Your task to perform on an android device: turn on improve location accuracy Image 0: 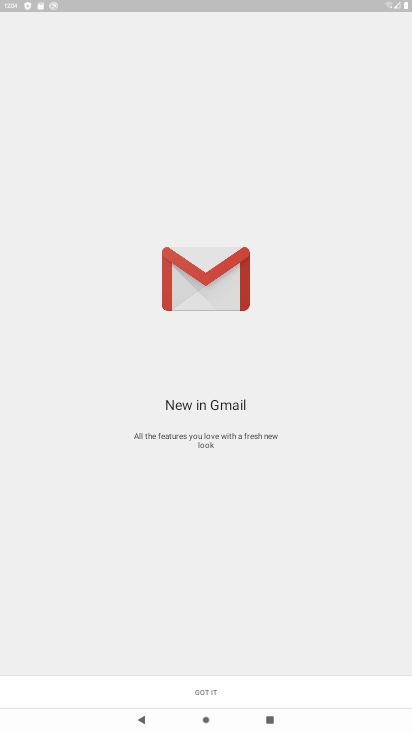
Step 0: press home button
Your task to perform on an android device: turn on improve location accuracy Image 1: 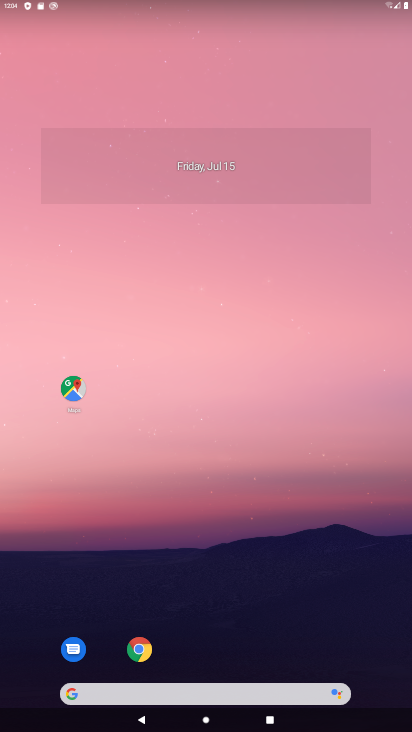
Step 1: drag from (253, 558) to (145, 16)
Your task to perform on an android device: turn on improve location accuracy Image 2: 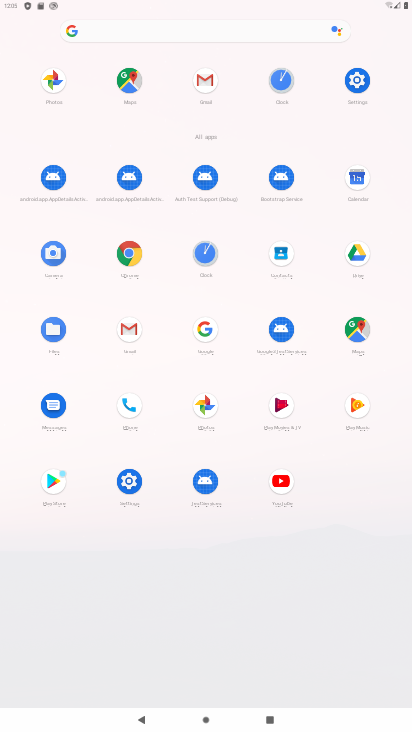
Step 2: click (137, 484)
Your task to perform on an android device: turn on improve location accuracy Image 3: 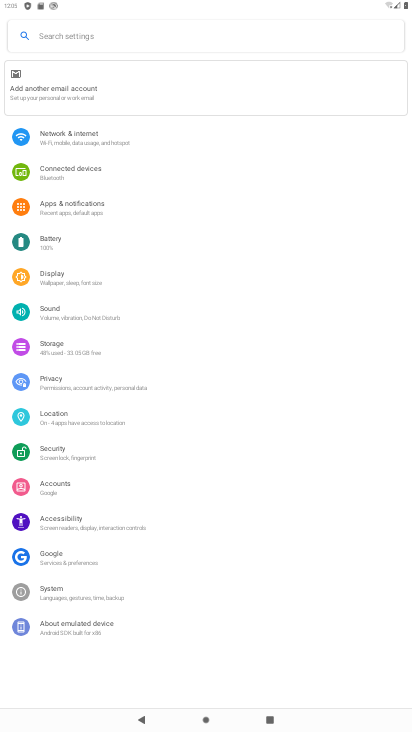
Step 3: click (87, 424)
Your task to perform on an android device: turn on improve location accuracy Image 4: 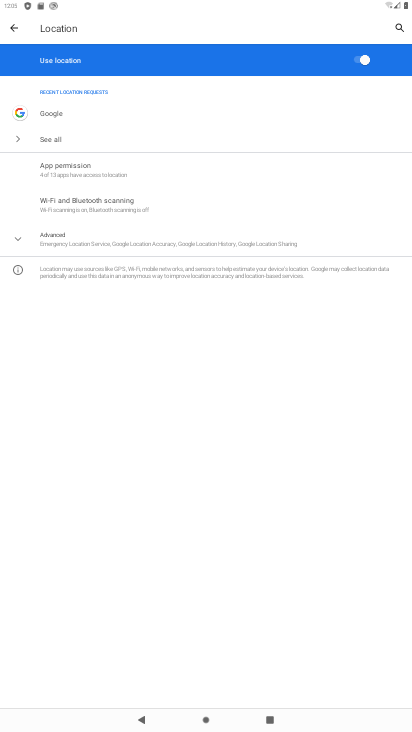
Step 4: click (141, 245)
Your task to perform on an android device: turn on improve location accuracy Image 5: 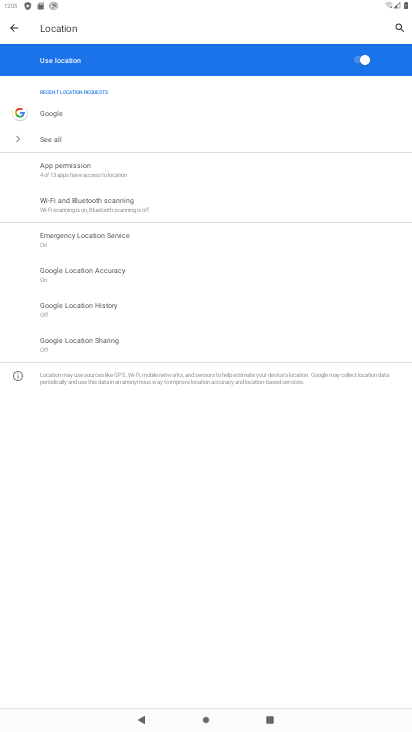
Step 5: click (114, 273)
Your task to perform on an android device: turn on improve location accuracy Image 6: 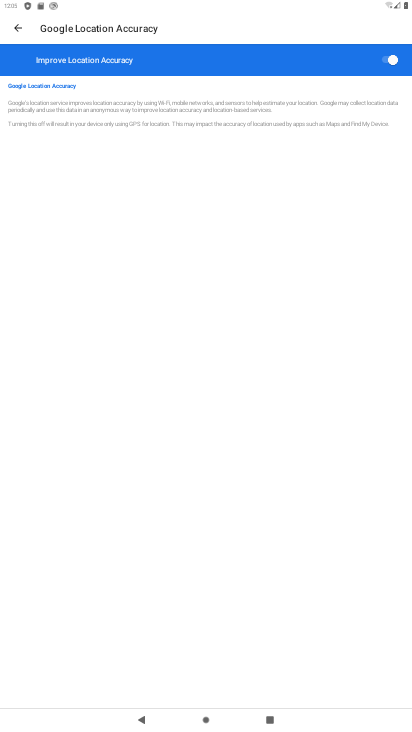
Step 6: task complete